Your task to perform on an android device: What is the news today? Image 0: 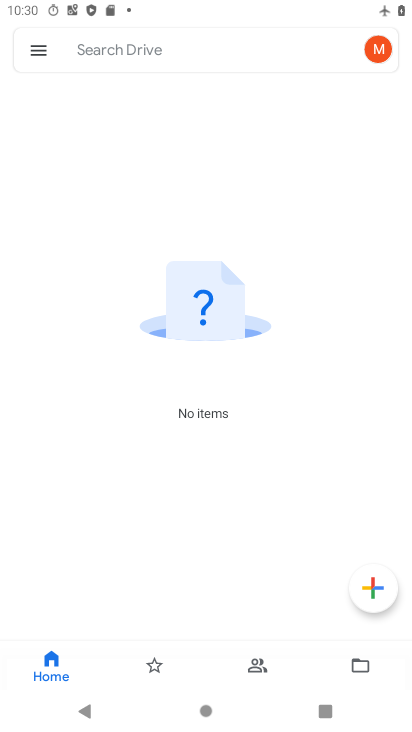
Step 0: press home button
Your task to perform on an android device: What is the news today? Image 1: 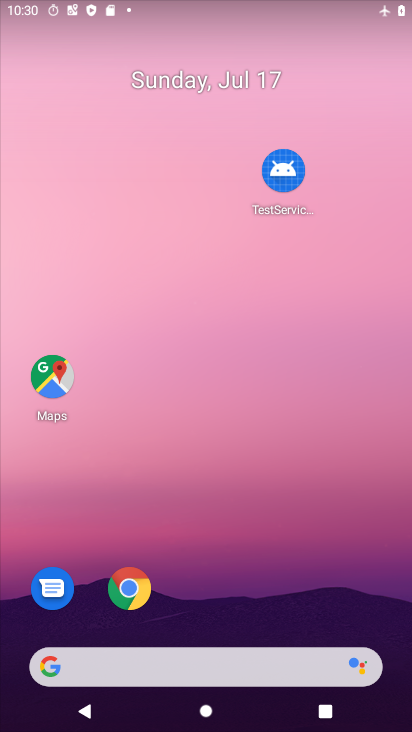
Step 1: drag from (248, 618) to (315, 186)
Your task to perform on an android device: What is the news today? Image 2: 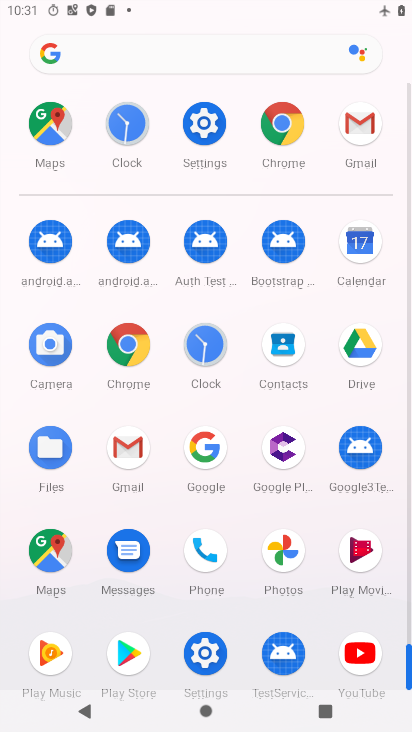
Step 2: click (214, 459)
Your task to perform on an android device: What is the news today? Image 3: 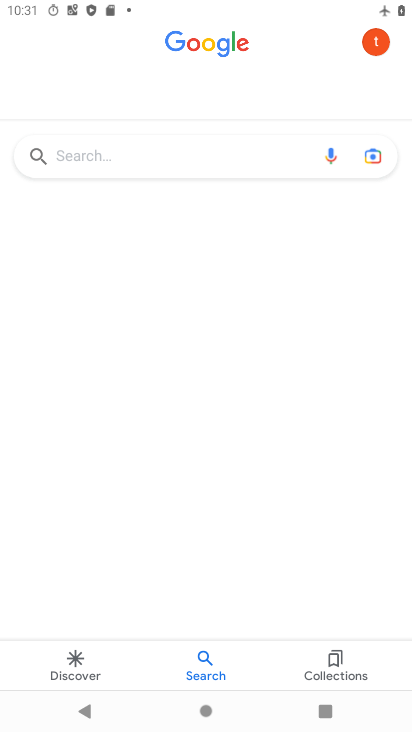
Step 3: click (229, 145)
Your task to perform on an android device: What is the news today? Image 4: 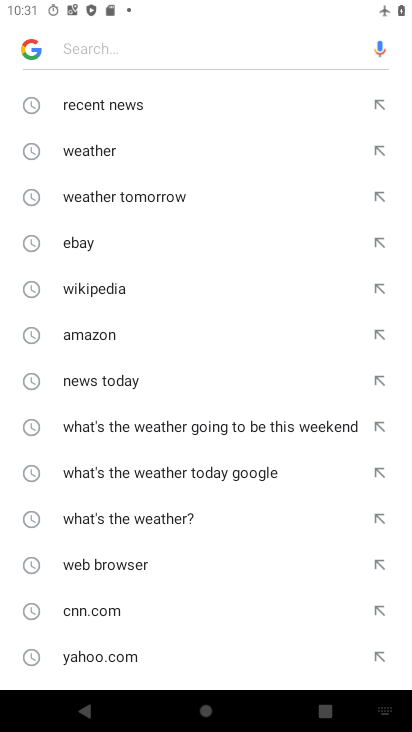
Step 4: click (124, 379)
Your task to perform on an android device: What is the news today? Image 5: 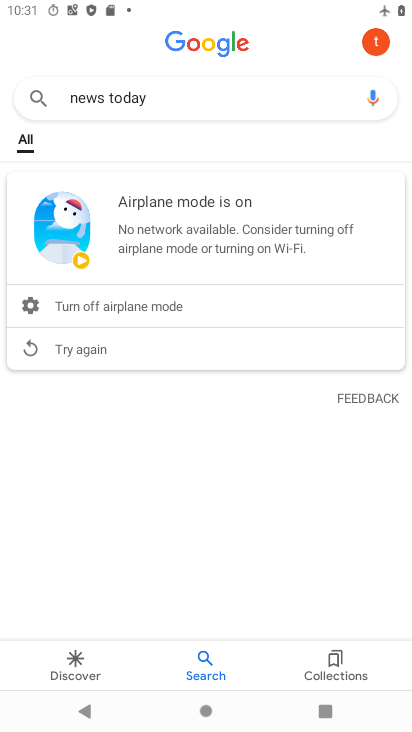
Step 5: task complete